Your task to perform on an android device: toggle pop-ups in chrome Image 0: 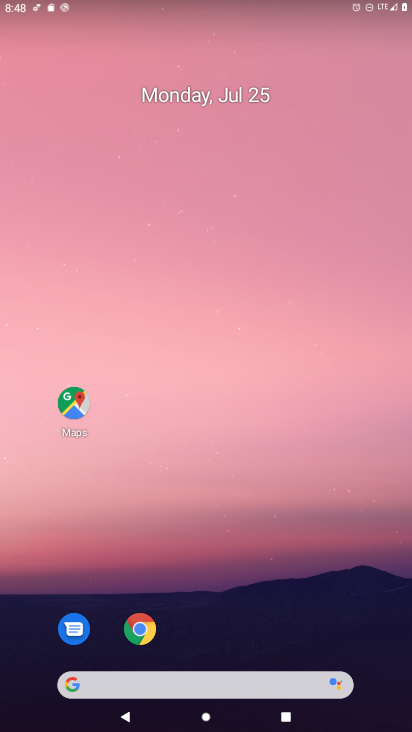
Step 0: click (141, 630)
Your task to perform on an android device: toggle pop-ups in chrome Image 1: 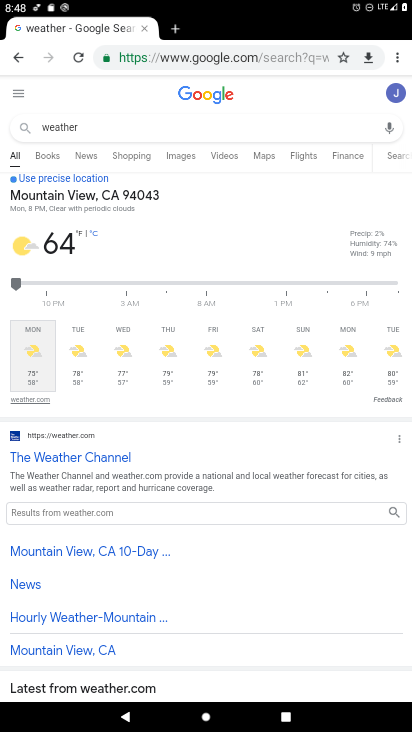
Step 1: click (396, 57)
Your task to perform on an android device: toggle pop-ups in chrome Image 2: 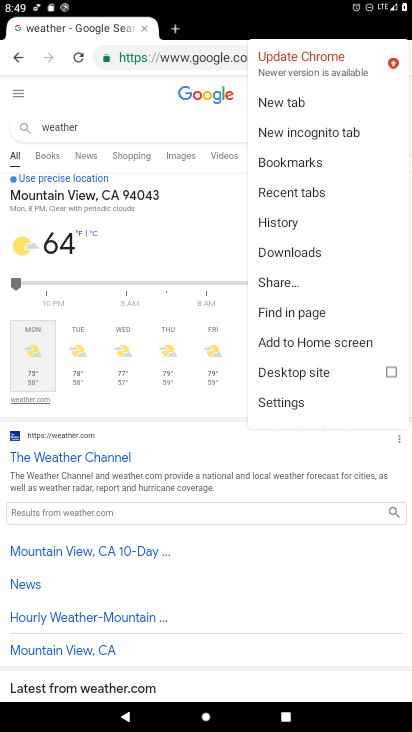
Step 2: click (282, 402)
Your task to perform on an android device: toggle pop-ups in chrome Image 3: 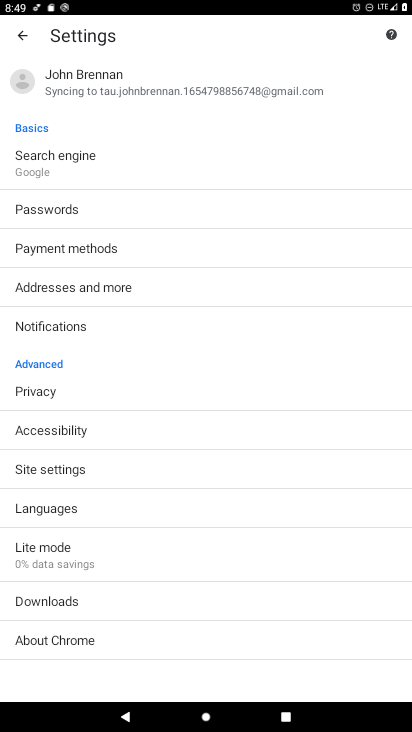
Step 3: click (42, 468)
Your task to perform on an android device: toggle pop-ups in chrome Image 4: 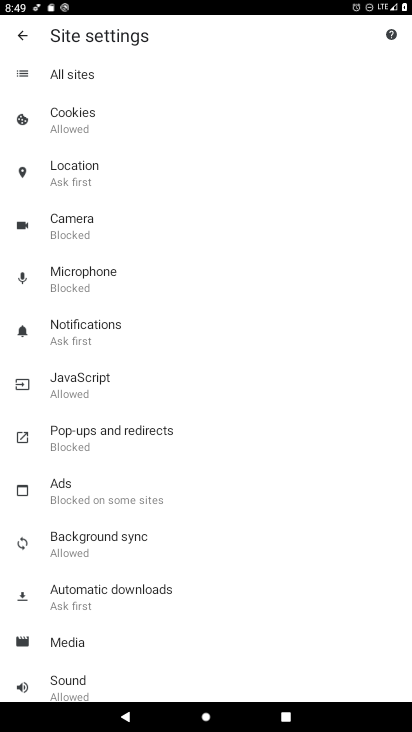
Step 4: click (83, 431)
Your task to perform on an android device: toggle pop-ups in chrome Image 5: 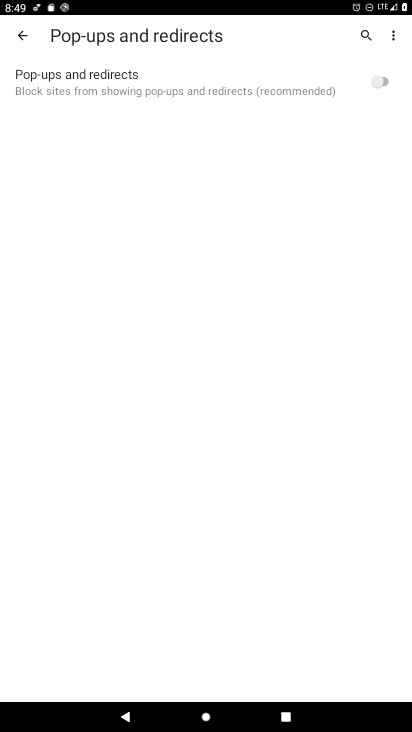
Step 5: click (374, 82)
Your task to perform on an android device: toggle pop-ups in chrome Image 6: 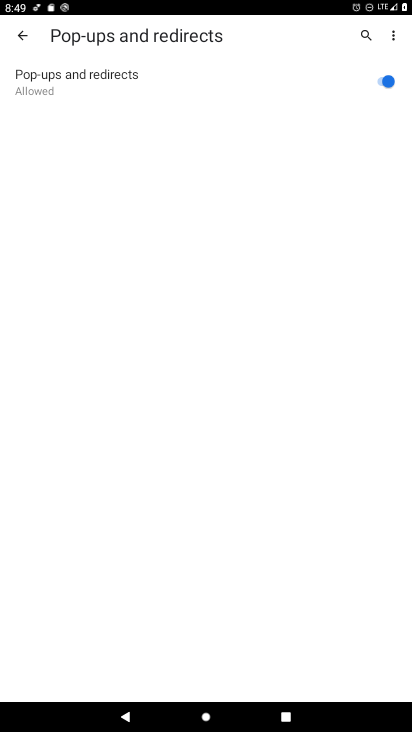
Step 6: task complete